Your task to perform on an android device: uninstall "Spotify: Music and Podcasts" Image 0: 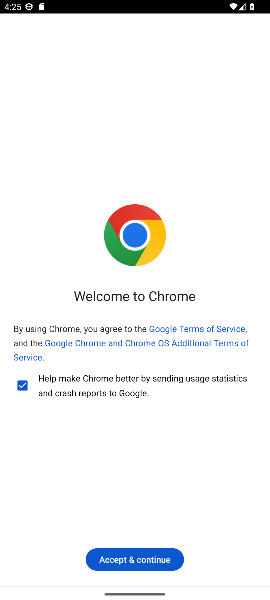
Step 0: press home button
Your task to perform on an android device: uninstall "Spotify: Music and Podcasts" Image 1: 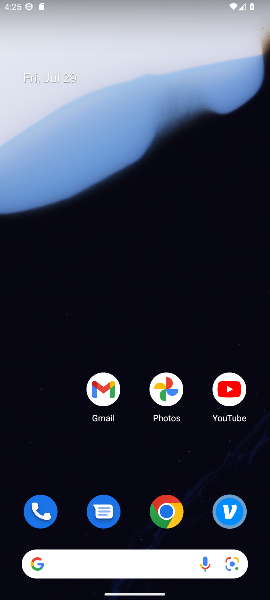
Step 1: drag from (108, 545) to (95, 239)
Your task to perform on an android device: uninstall "Spotify: Music and Podcasts" Image 2: 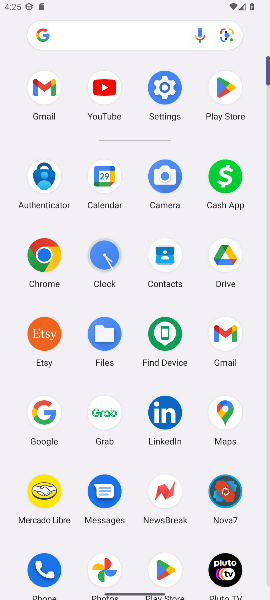
Step 2: click (220, 88)
Your task to perform on an android device: uninstall "Spotify: Music and Podcasts" Image 3: 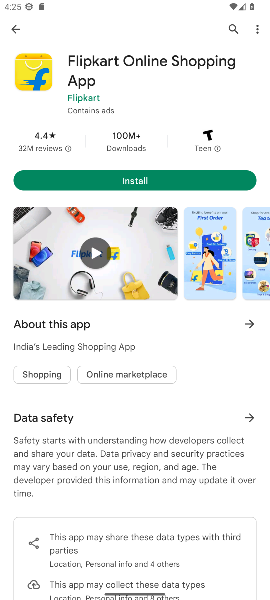
Step 3: click (15, 27)
Your task to perform on an android device: uninstall "Spotify: Music and Podcasts" Image 4: 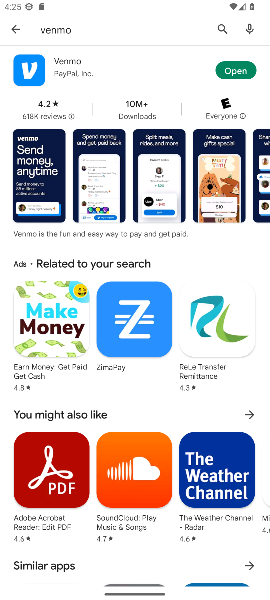
Step 4: click (11, 27)
Your task to perform on an android device: uninstall "Spotify: Music and Podcasts" Image 5: 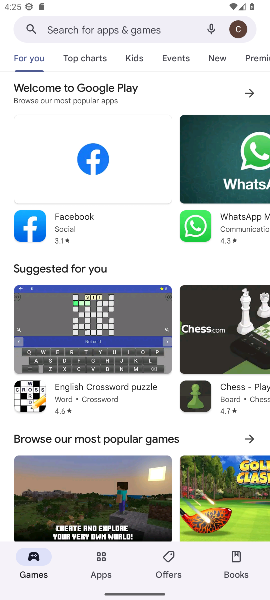
Step 5: click (78, 23)
Your task to perform on an android device: uninstall "Spotify: Music and Podcasts" Image 6: 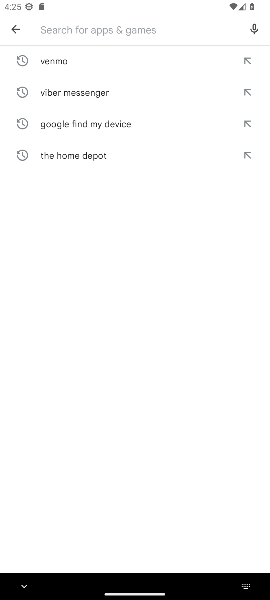
Step 6: type "Spotify: Music and Podcasts"
Your task to perform on an android device: uninstall "Spotify: Music and Podcasts" Image 7: 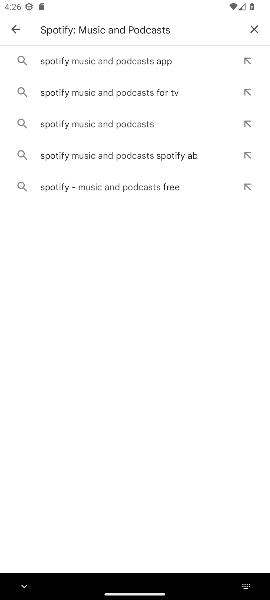
Step 7: click (97, 59)
Your task to perform on an android device: uninstall "Spotify: Music and Podcasts" Image 8: 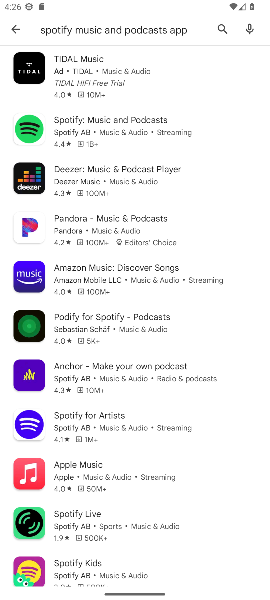
Step 8: click (122, 130)
Your task to perform on an android device: uninstall "Spotify: Music and Podcasts" Image 9: 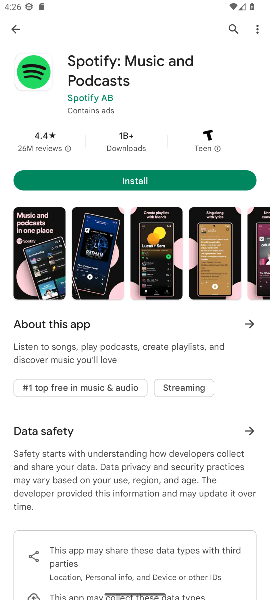
Step 9: task complete